Your task to perform on an android device: Open the calendar app, open the side menu, and click the "Day" option Image 0: 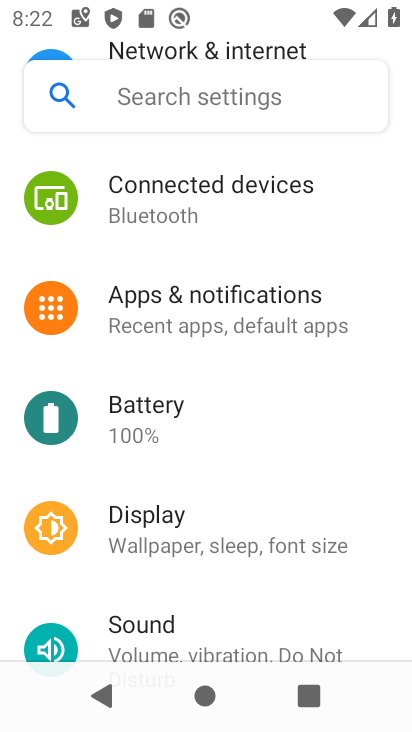
Step 0: press home button
Your task to perform on an android device: Open the calendar app, open the side menu, and click the "Day" option Image 1: 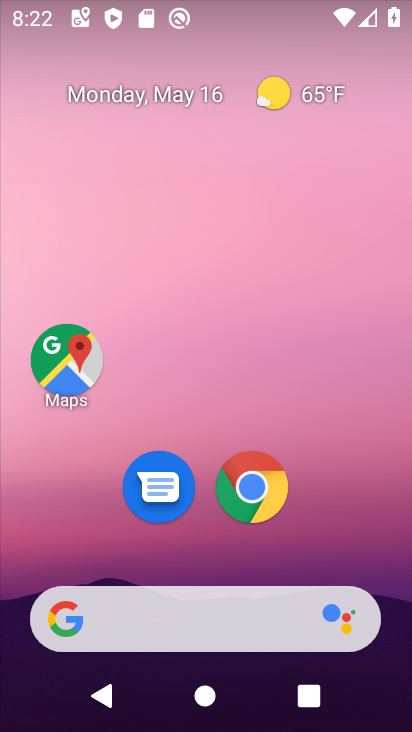
Step 1: drag from (388, 539) to (399, 197)
Your task to perform on an android device: Open the calendar app, open the side menu, and click the "Day" option Image 2: 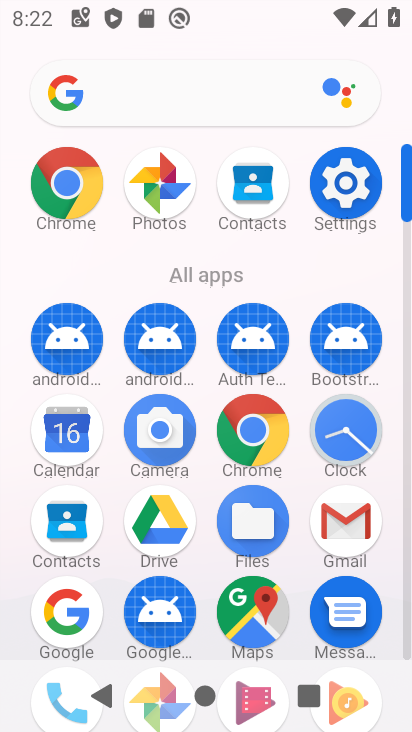
Step 2: click (83, 438)
Your task to perform on an android device: Open the calendar app, open the side menu, and click the "Day" option Image 3: 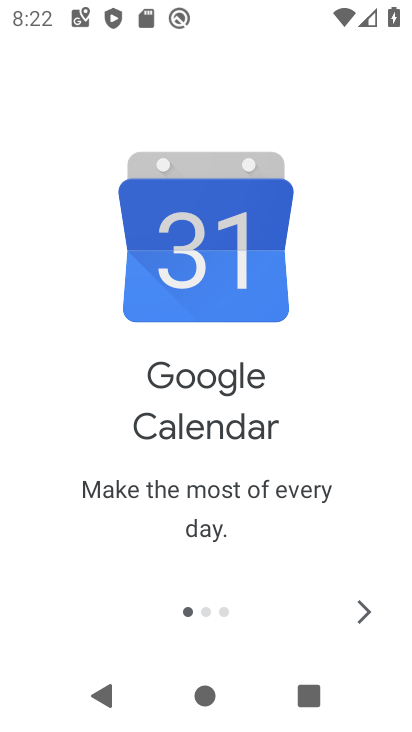
Step 3: click (370, 610)
Your task to perform on an android device: Open the calendar app, open the side menu, and click the "Day" option Image 4: 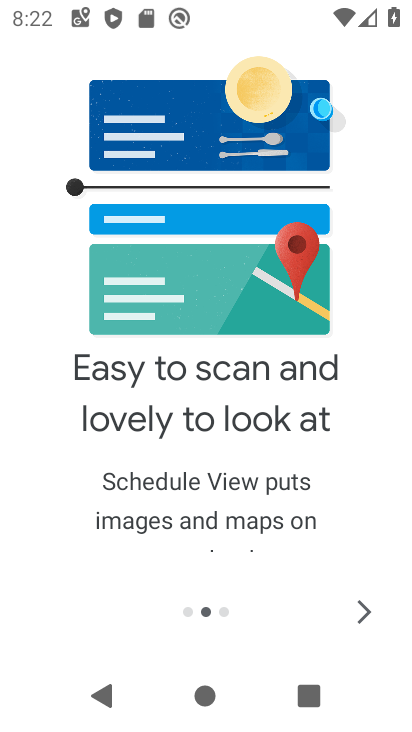
Step 4: click (365, 606)
Your task to perform on an android device: Open the calendar app, open the side menu, and click the "Day" option Image 5: 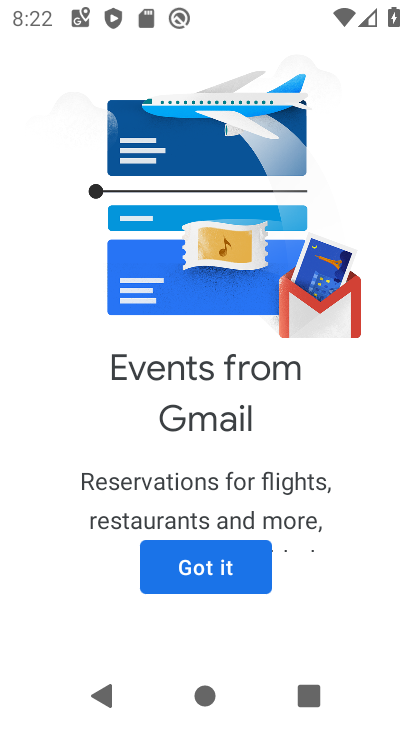
Step 5: click (235, 578)
Your task to perform on an android device: Open the calendar app, open the side menu, and click the "Day" option Image 6: 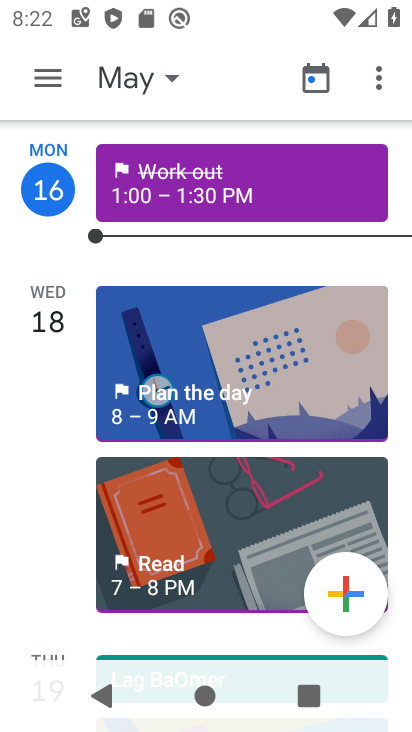
Step 6: click (43, 83)
Your task to perform on an android device: Open the calendar app, open the side menu, and click the "Day" option Image 7: 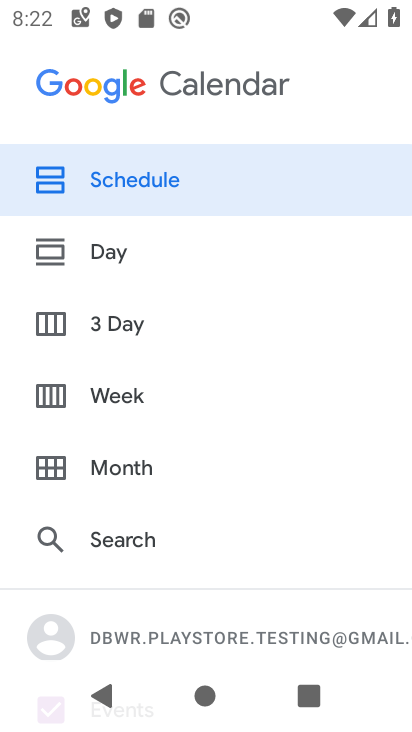
Step 7: click (130, 259)
Your task to perform on an android device: Open the calendar app, open the side menu, and click the "Day" option Image 8: 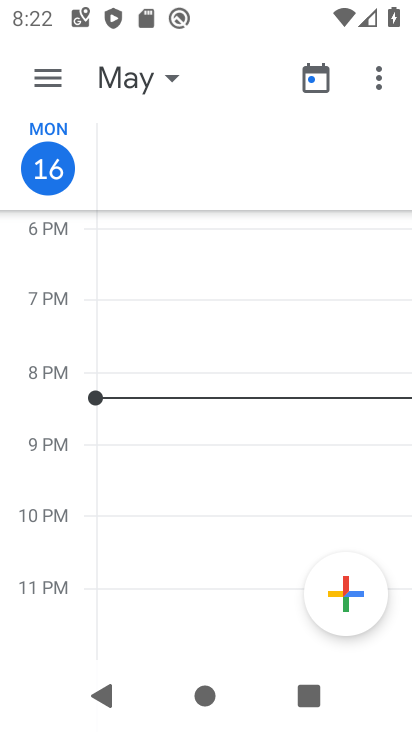
Step 8: task complete